Your task to perform on an android device: manage bookmarks in the chrome app Image 0: 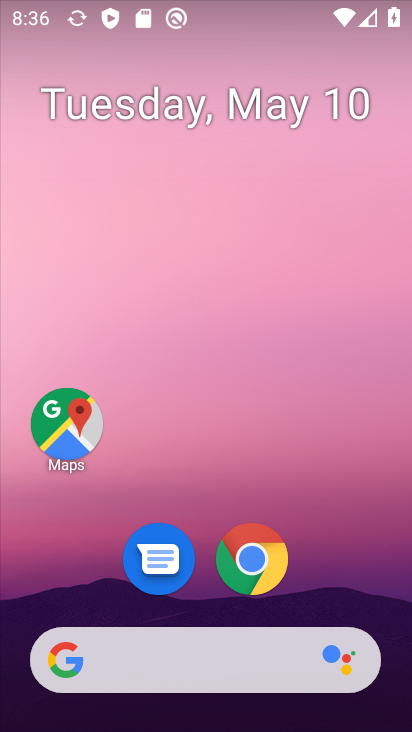
Step 0: drag from (370, 593) to (162, 131)
Your task to perform on an android device: manage bookmarks in the chrome app Image 1: 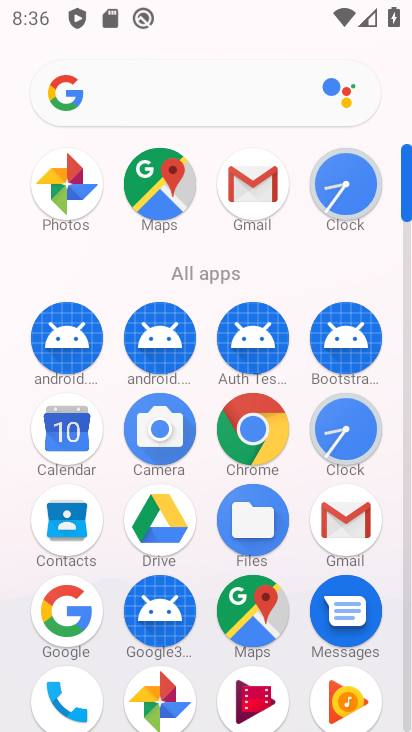
Step 1: click (256, 429)
Your task to perform on an android device: manage bookmarks in the chrome app Image 2: 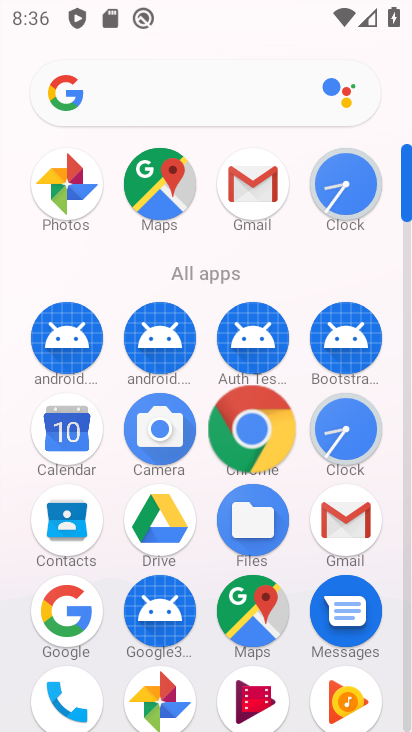
Step 2: click (257, 428)
Your task to perform on an android device: manage bookmarks in the chrome app Image 3: 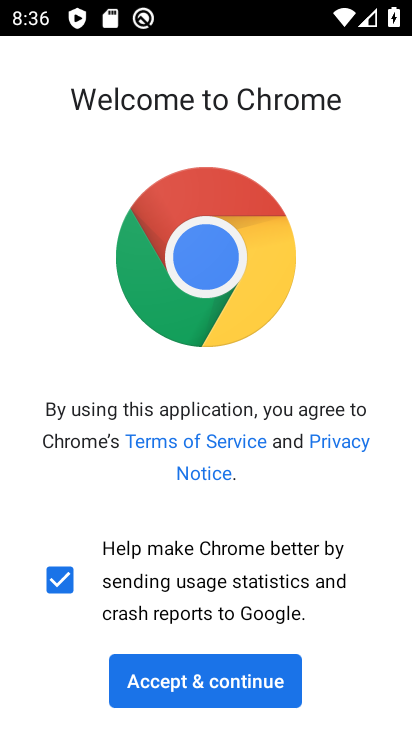
Step 3: click (216, 676)
Your task to perform on an android device: manage bookmarks in the chrome app Image 4: 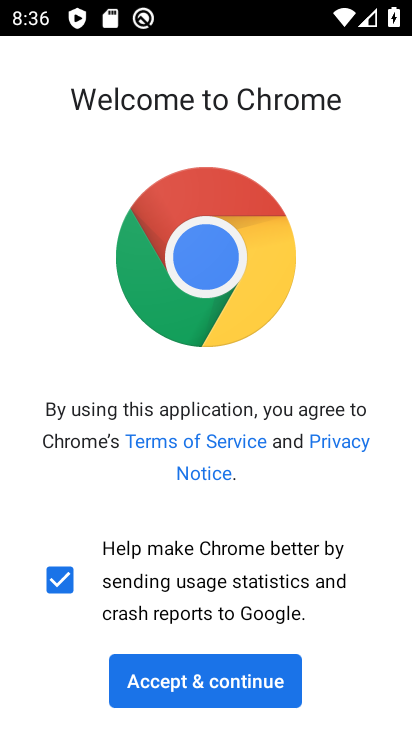
Step 4: click (216, 676)
Your task to perform on an android device: manage bookmarks in the chrome app Image 5: 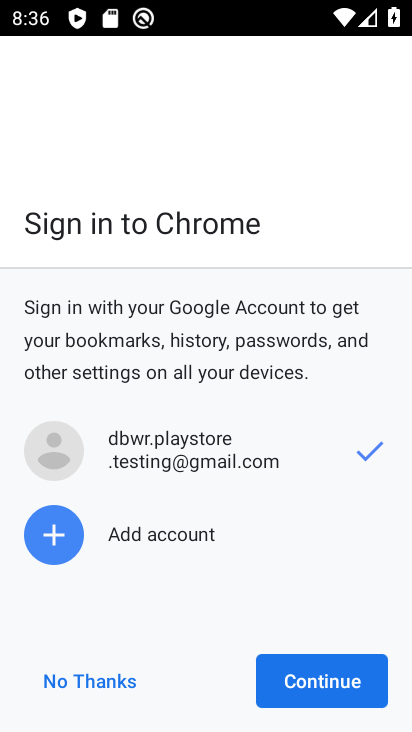
Step 5: click (319, 678)
Your task to perform on an android device: manage bookmarks in the chrome app Image 6: 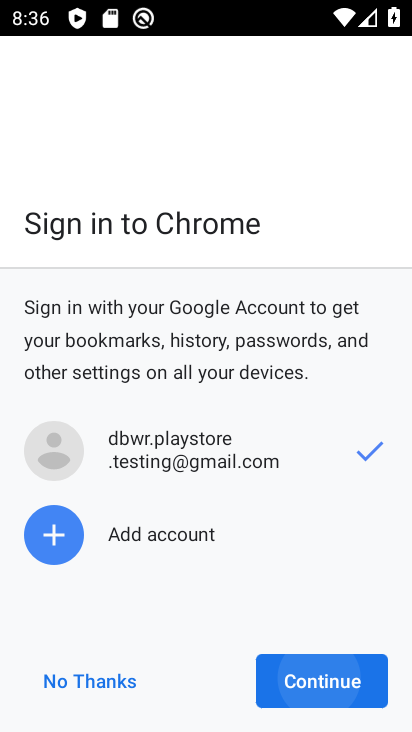
Step 6: click (319, 678)
Your task to perform on an android device: manage bookmarks in the chrome app Image 7: 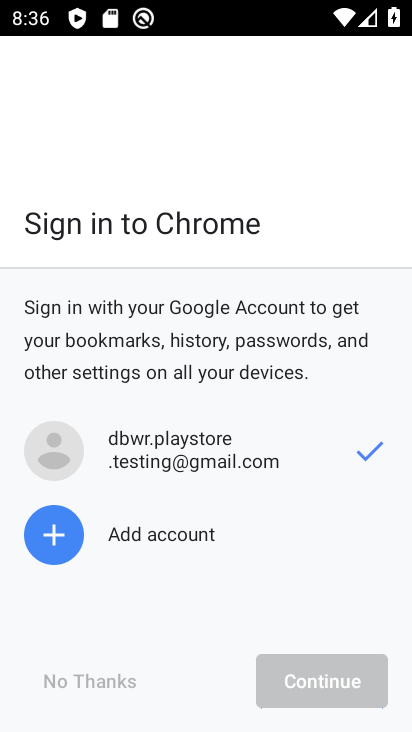
Step 7: click (319, 678)
Your task to perform on an android device: manage bookmarks in the chrome app Image 8: 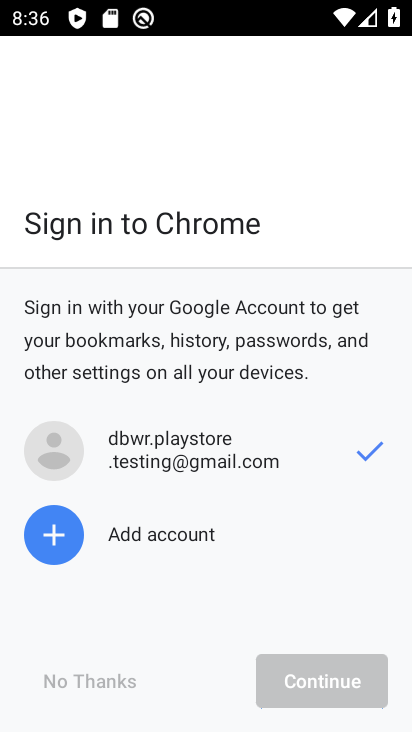
Step 8: click (319, 678)
Your task to perform on an android device: manage bookmarks in the chrome app Image 9: 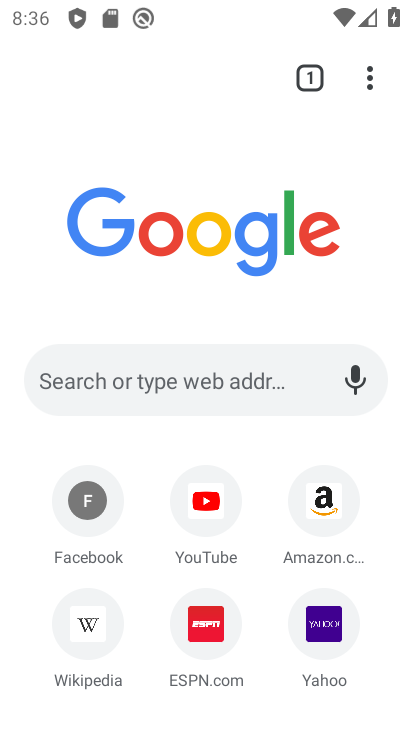
Step 9: drag from (367, 78) to (89, 616)
Your task to perform on an android device: manage bookmarks in the chrome app Image 10: 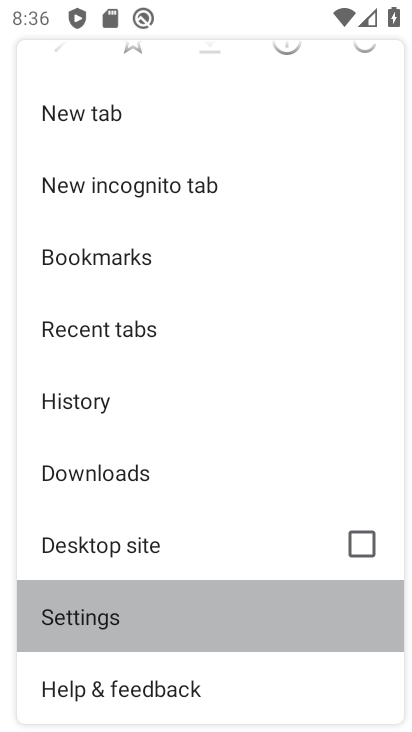
Step 10: click (92, 617)
Your task to perform on an android device: manage bookmarks in the chrome app Image 11: 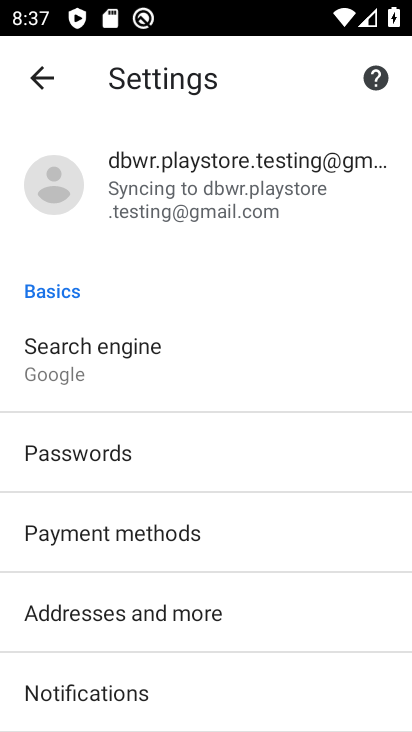
Step 11: drag from (117, 562) to (40, 231)
Your task to perform on an android device: manage bookmarks in the chrome app Image 12: 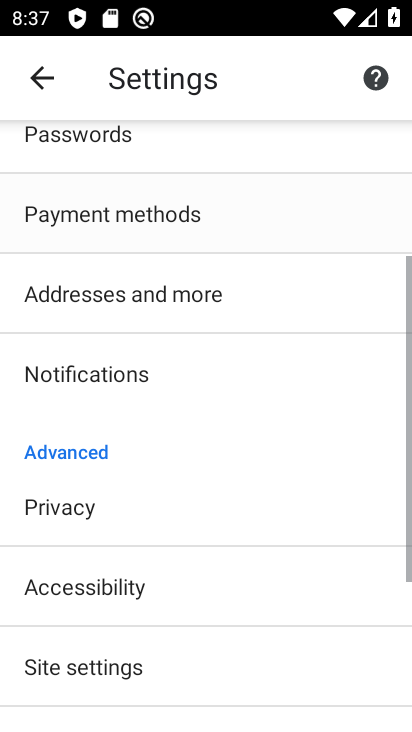
Step 12: drag from (165, 589) to (112, 169)
Your task to perform on an android device: manage bookmarks in the chrome app Image 13: 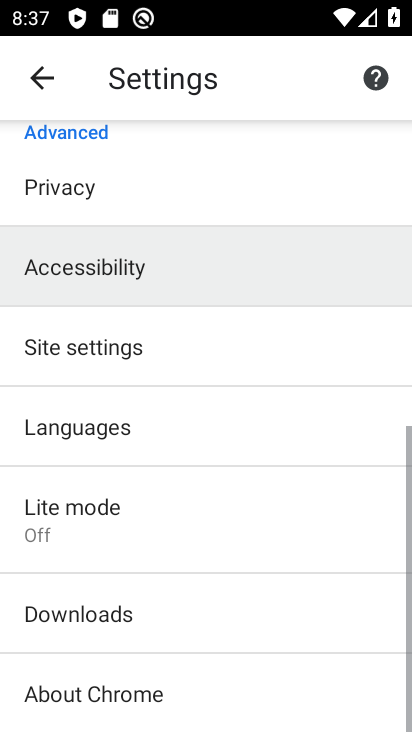
Step 13: drag from (181, 596) to (145, 176)
Your task to perform on an android device: manage bookmarks in the chrome app Image 14: 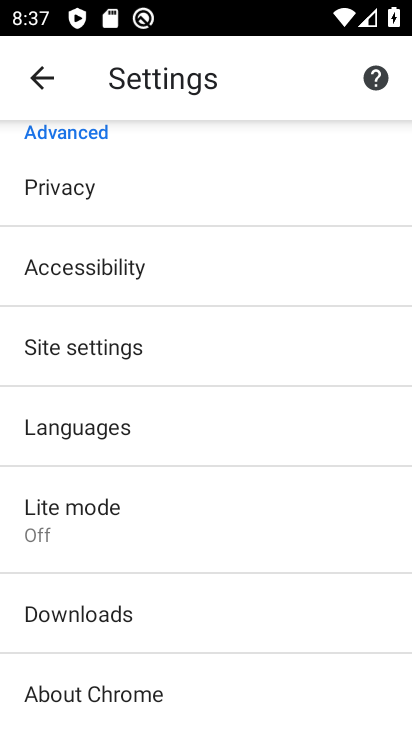
Step 14: drag from (95, 306) to (120, 572)
Your task to perform on an android device: manage bookmarks in the chrome app Image 15: 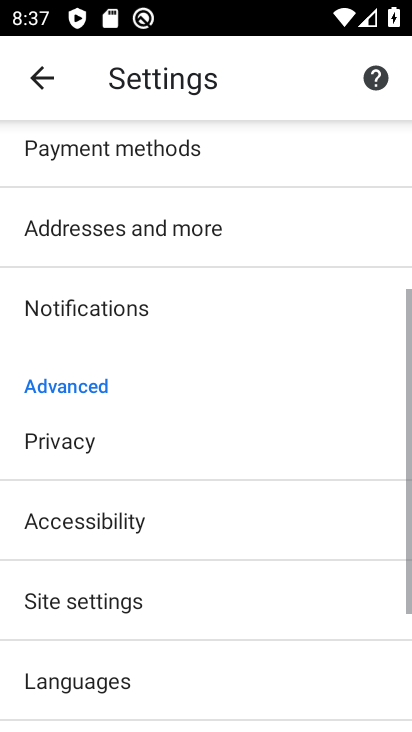
Step 15: drag from (108, 192) to (178, 625)
Your task to perform on an android device: manage bookmarks in the chrome app Image 16: 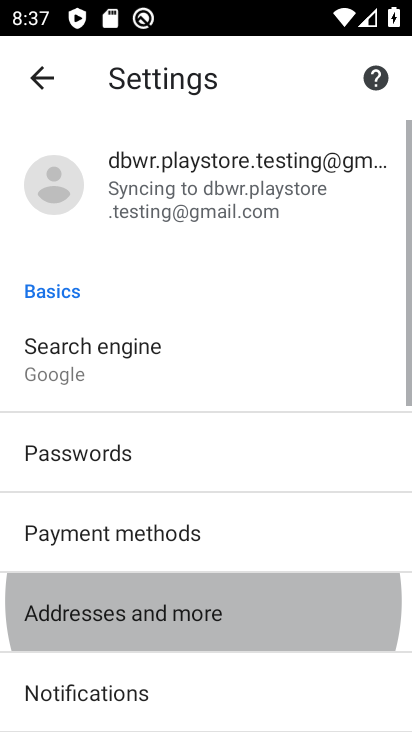
Step 16: drag from (134, 204) to (196, 576)
Your task to perform on an android device: manage bookmarks in the chrome app Image 17: 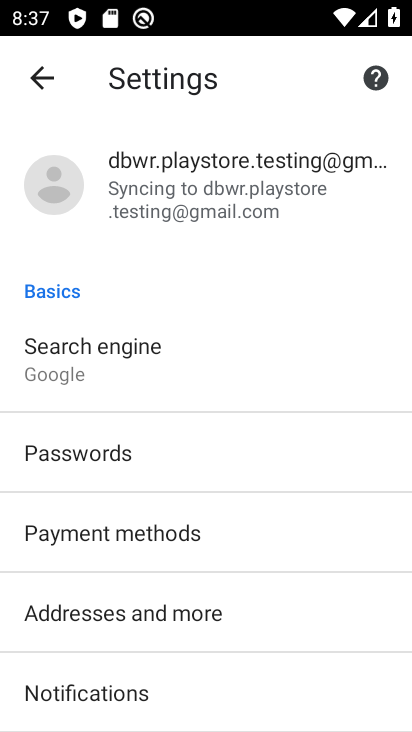
Step 17: click (34, 81)
Your task to perform on an android device: manage bookmarks in the chrome app Image 18: 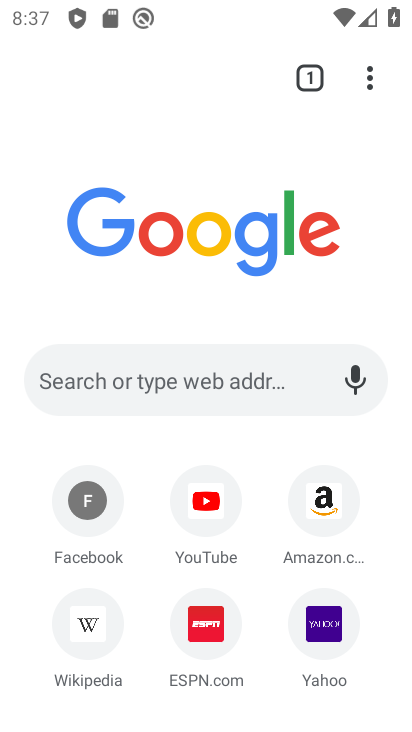
Step 18: drag from (365, 74) to (96, 300)
Your task to perform on an android device: manage bookmarks in the chrome app Image 19: 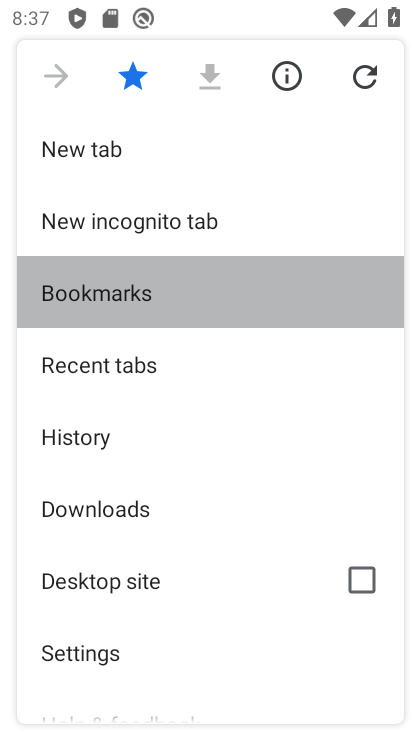
Step 19: click (100, 298)
Your task to perform on an android device: manage bookmarks in the chrome app Image 20: 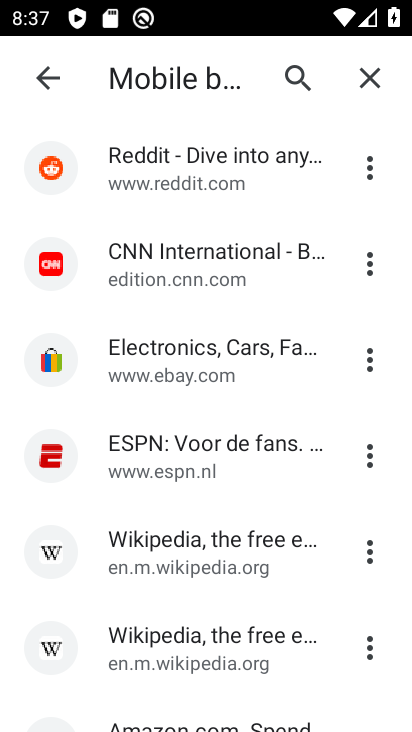
Step 20: click (369, 165)
Your task to perform on an android device: manage bookmarks in the chrome app Image 21: 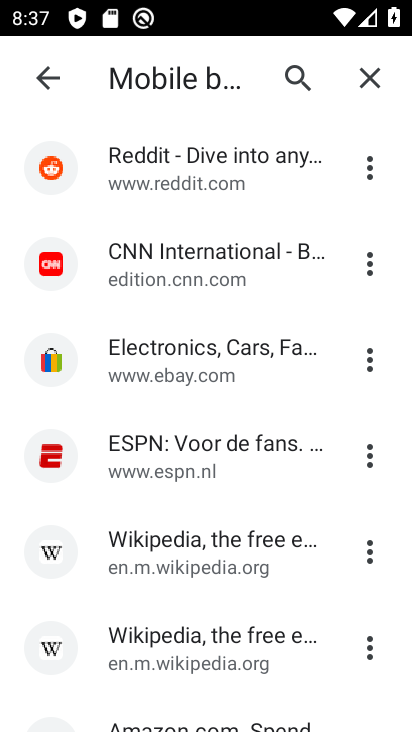
Step 21: click (372, 179)
Your task to perform on an android device: manage bookmarks in the chrome app Image 22: 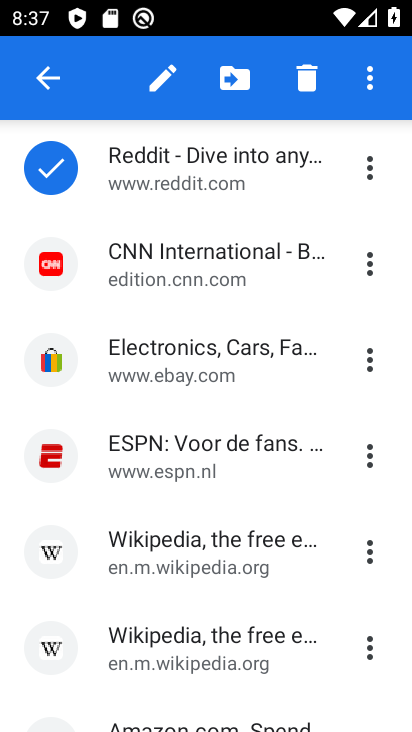
Step 22: click (295, 74)
Your task to perform on an android device: manage bookmarks in the chrome app Image 23: 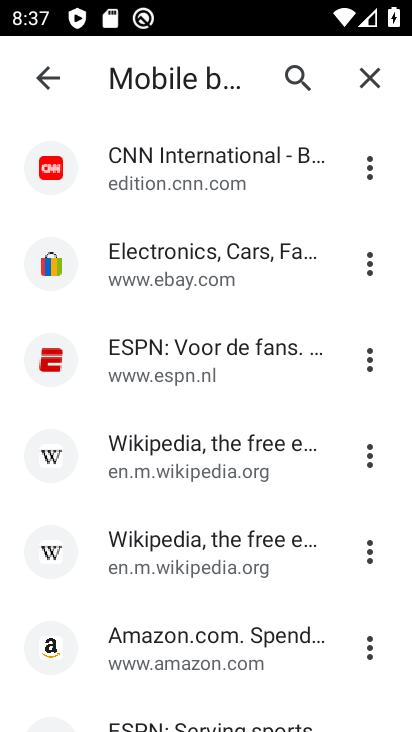
Step 23: click (303, 78)
Your task to perform on an android device: manage bookmarks in the chrome app Image 24: 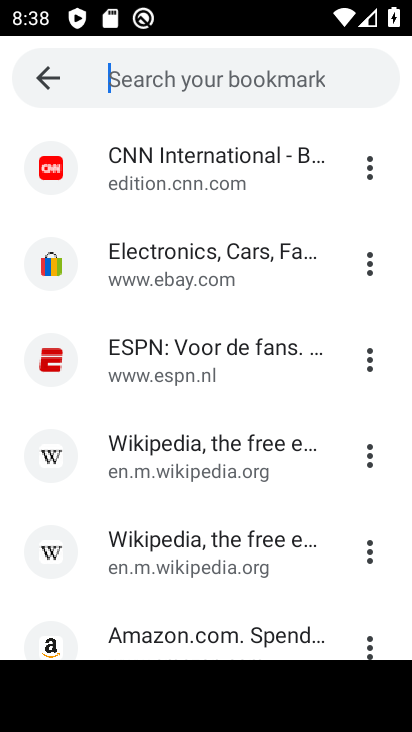
Step 24: click (44, 69)
Your task to perform on an android device: manage bookmarks in the chrome app Image 25: 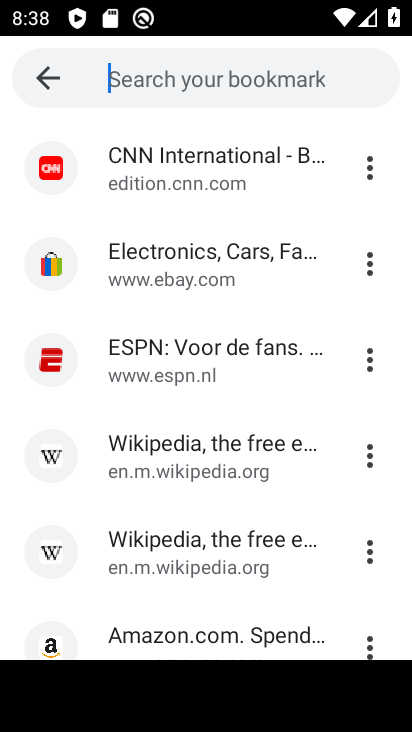
Step 25: click (42, 69)
Your task to perform on an android device: manage bookmarks in the chrome app Image 26: 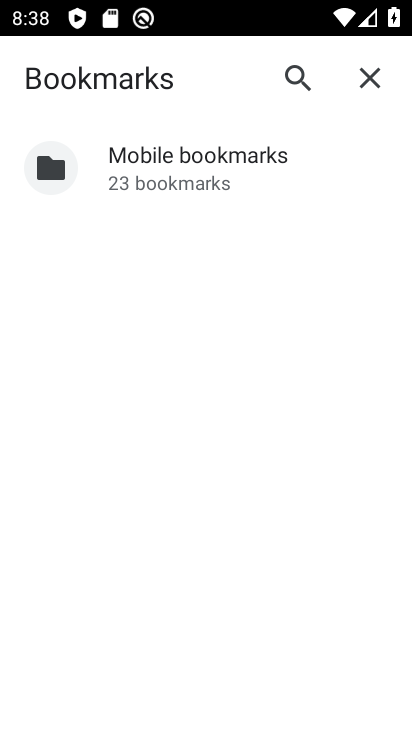
Step 26: click (369, 74)
Your task to perform on an android device: manage bookmarks in the chrome app Image 27: 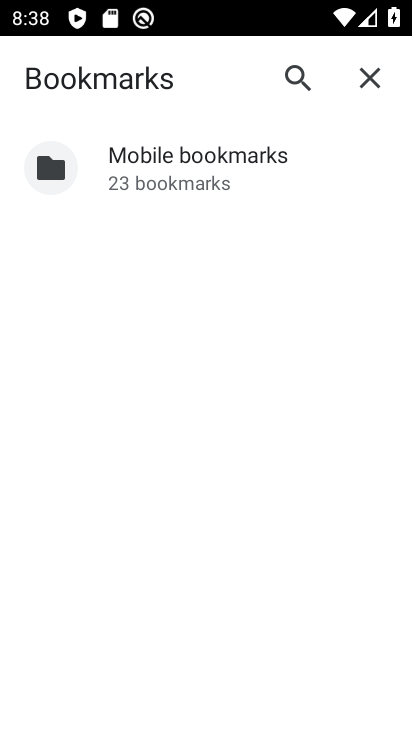
Step 27: click (369, 74)
Your task to perform on an android device: manage bookmarks in the chrome app Image 28: 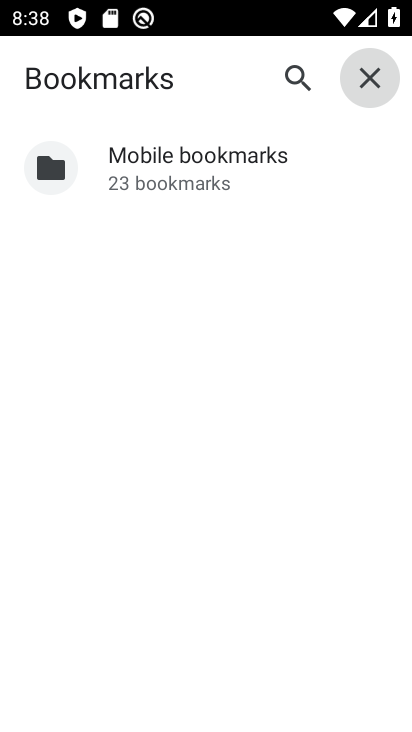
Step 28: click (369, 74)
Your task to perform on an android device: manage bookmarks in the chrome app Image 29: 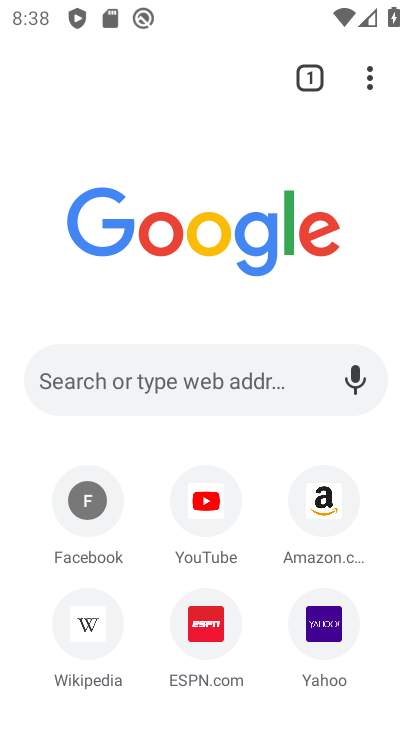
Step 29: click (367, 85)
Your task to perform on an android device: manage bookmarks in the chrome app Image 30: 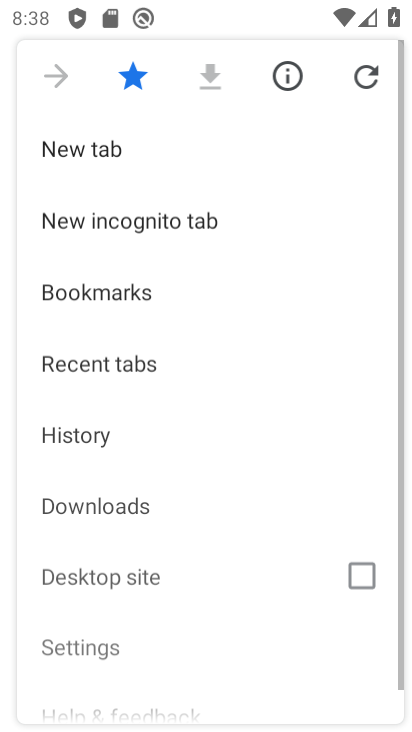
Step 30: click (367, 85)
Your task to perform on an android device: manage bookmarks in the chrome app Image 31: 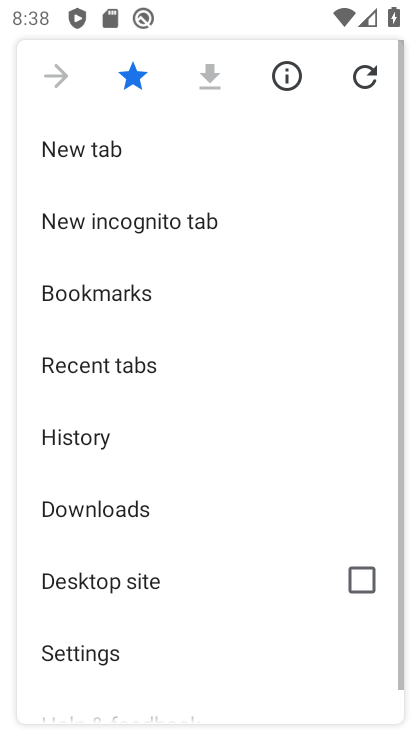
Step 31: click (368, 84)
Your task to perform on an android device: manage bookmarks in the chrome app Image 32: 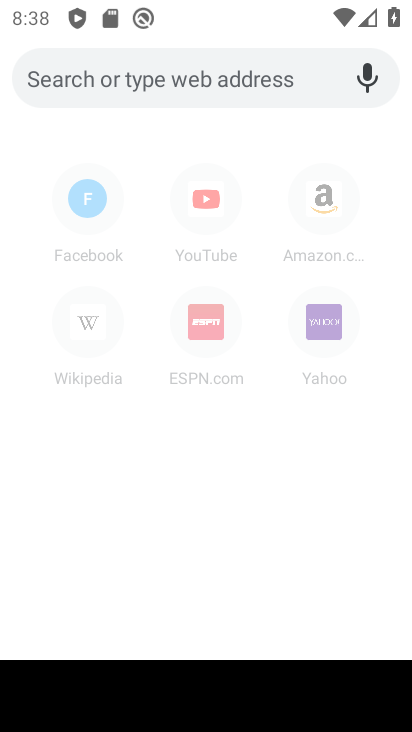
Step 32: click (45, 73)
Your task to perform on an android device: manage bookmarks in the chrome app Image 33: 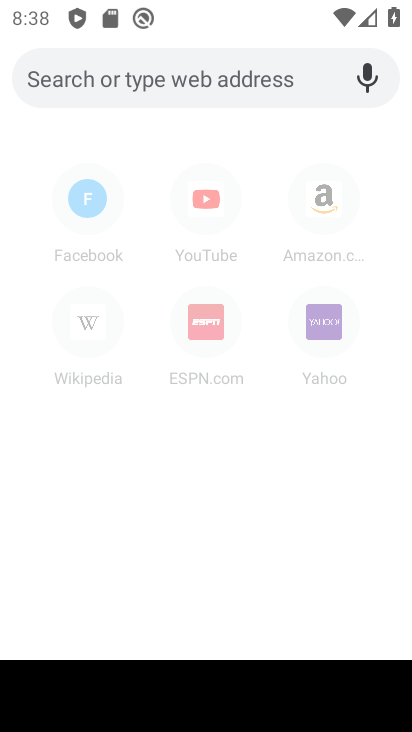
Step 33: click (45, 73)
Your task to perform on an android device: manage bookmarks in the chrome app Image 34: 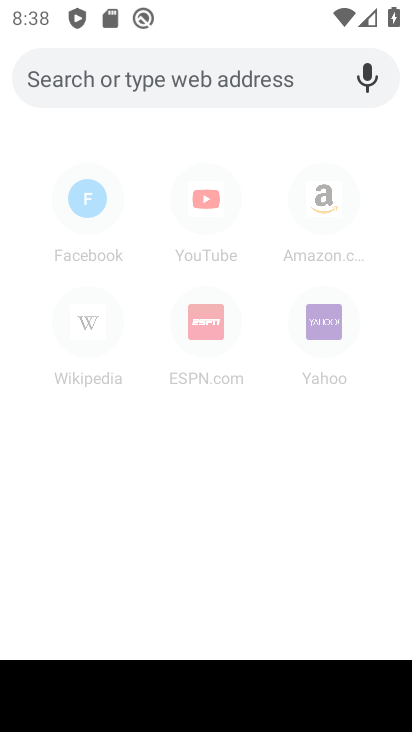
Step 34: click (37, 74)
Your task to perform on an android device: manage bookmarks in the chrome app Image 35: 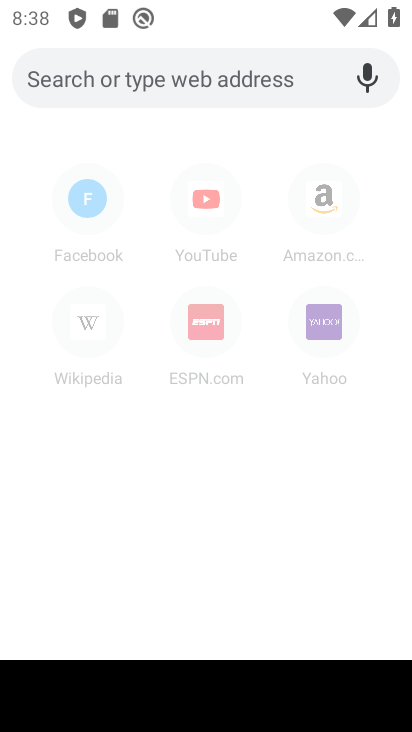
Step 35: click (37, 74)
Your task to perform on an android device: manage bookmarks in the chrome app Image 36: 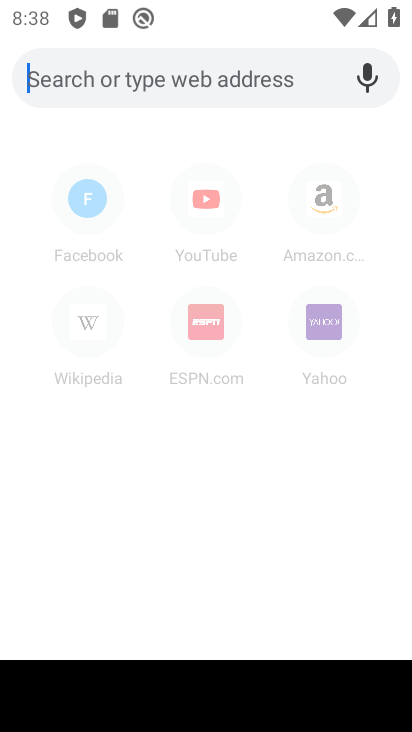
Step 36: click (38, 74)
Your task to perform on an android device: manage bookmarks in the chrome app Image 37: 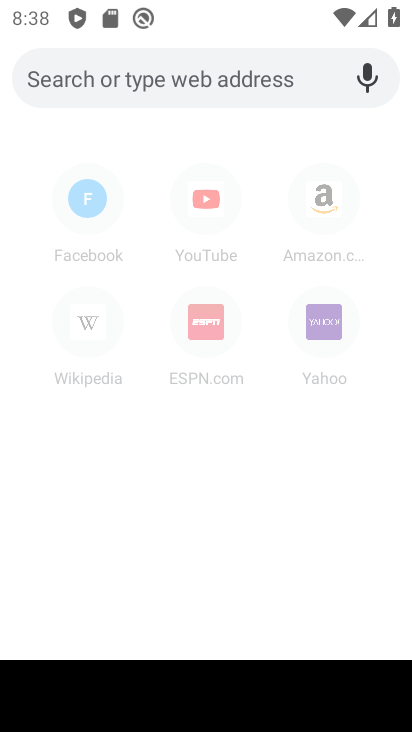
Step 37: click (40, 72)
Your task to perform on an android device: manage bookmarks in the chrome app Image 38: 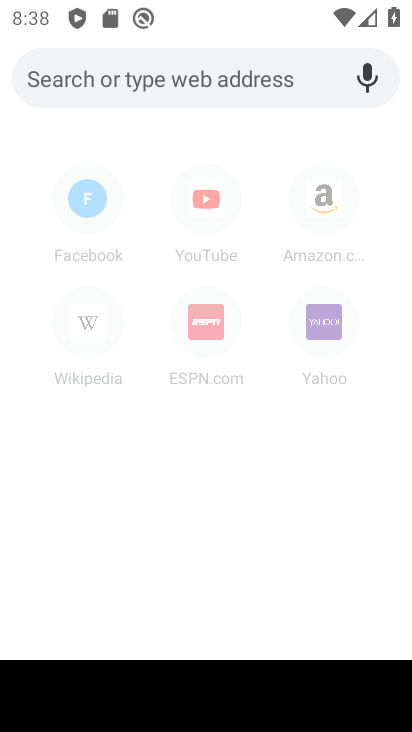
Step 38: click (40, 73)
Your task to perform on an android device: manage bookmarks in the chrome app Image 39: 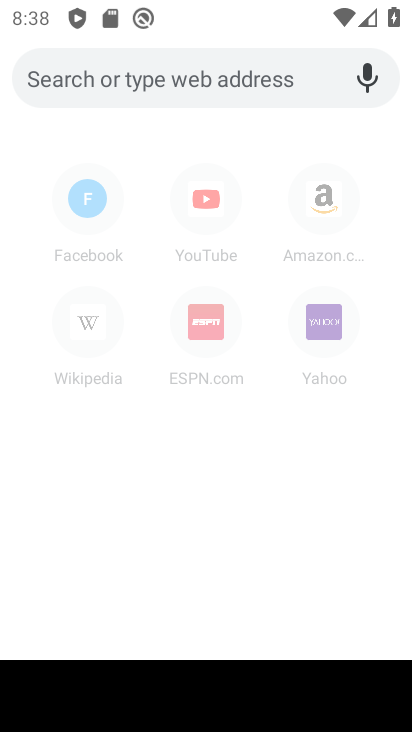
Step 39: click (40, 73)
Your task to perform on an android device: manage bookmarks in the chrome app Image 40: 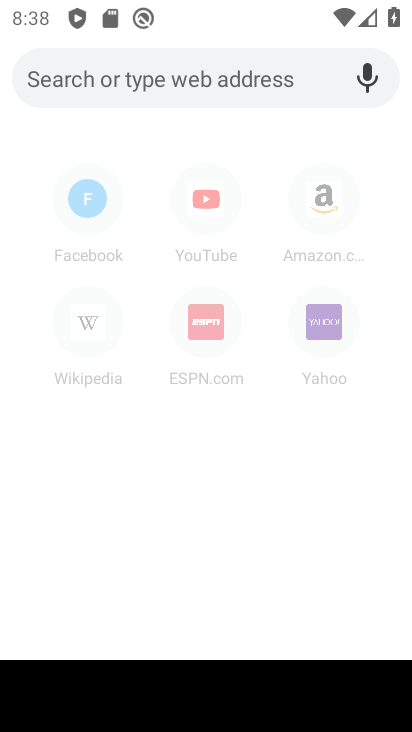
Step 40: click (40, 73)
Your task to perform on an android device: manage bookmarks in the chrome app Image 41: 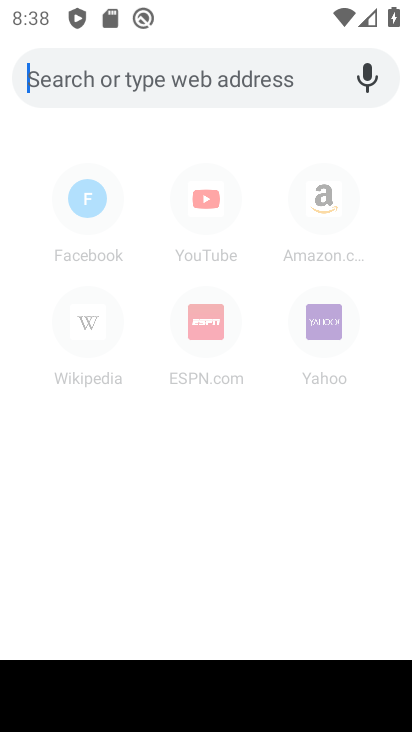
Step 41: click (40, 73)
Your task to perform on an android device: manage bookmarks in the chrome app Image 42: 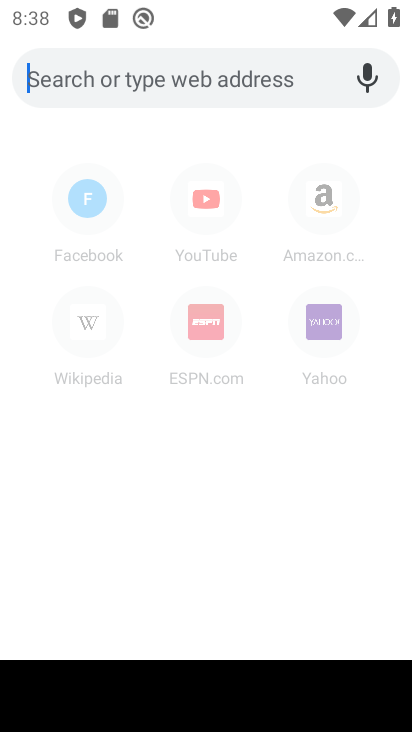
Step 42: click (41, 85)
Your task to perform on an android device: manage bookmarks in the chrome app Image 43: 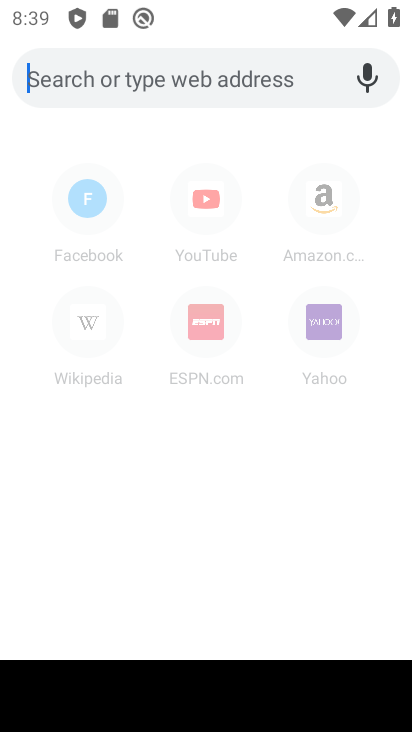
Step 43: press back button
Your task to perform on an android device: manage bookmarks in the chrome app Image 44: 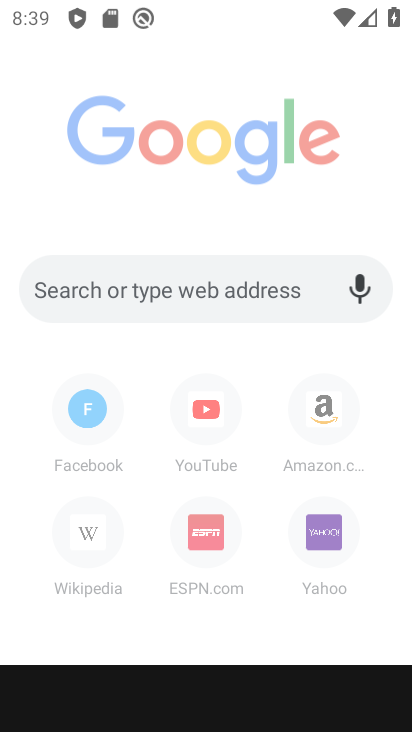
Step 44: press back button
Your task to perform on an android device: manage bookmarks in the chrome app Image 45: 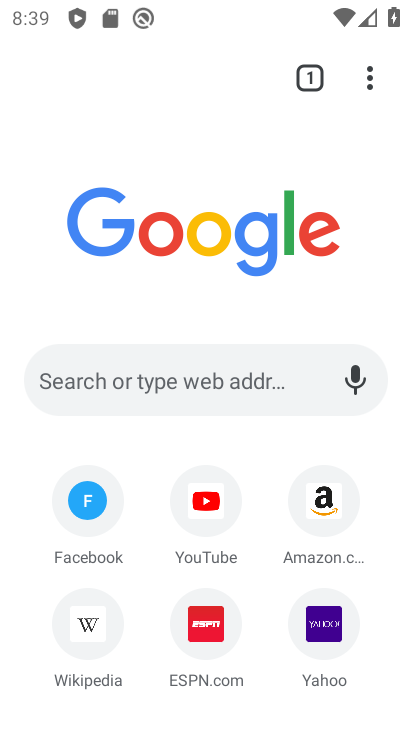
Step 45: press back button
Your task to perform on an android device: manage bookmarks in the chrome app Image 46: 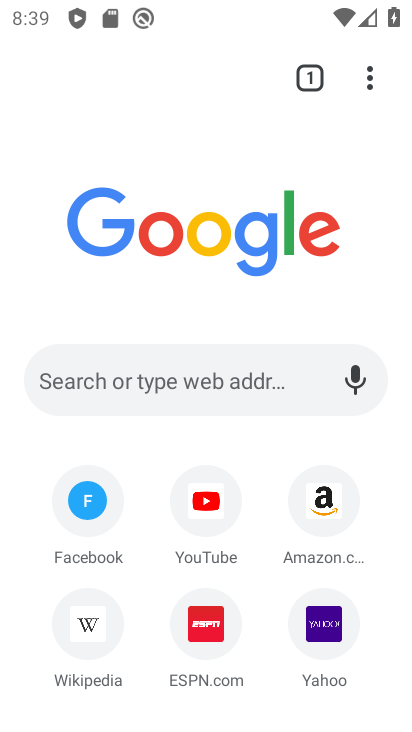
Step 46: click (321, 487)
Your task to perform on an android device: manage bookmarks in the chrome app Image 47: 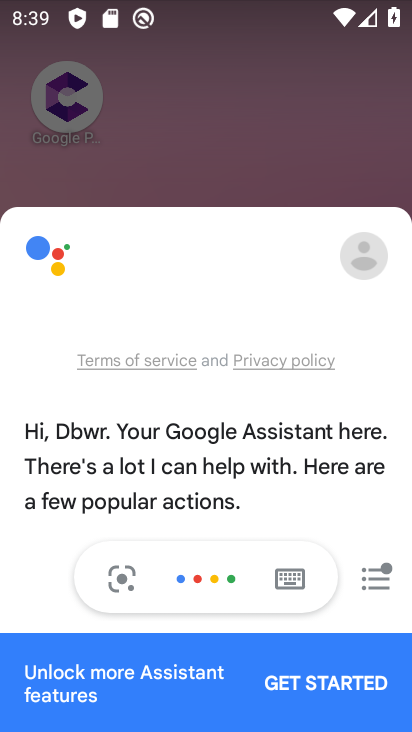
Step 47: click (137, 138)
Your task to perform on an android device: manage bookmarks in the chrome app Image 48: 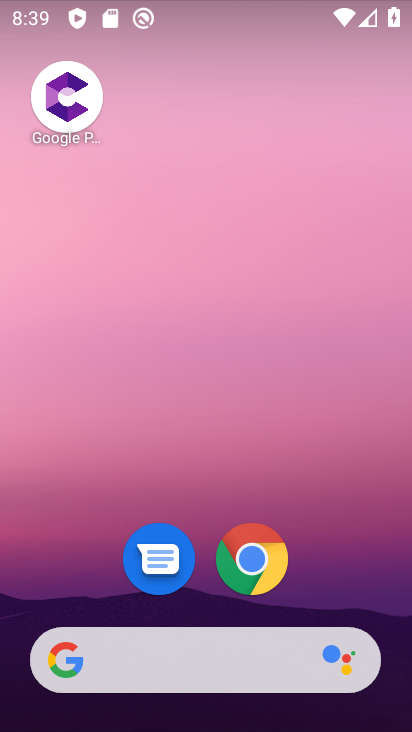
Step 48: click (137, 138)
Your task to perform on an android device: manage bookmarks in the chrome app Image 49: 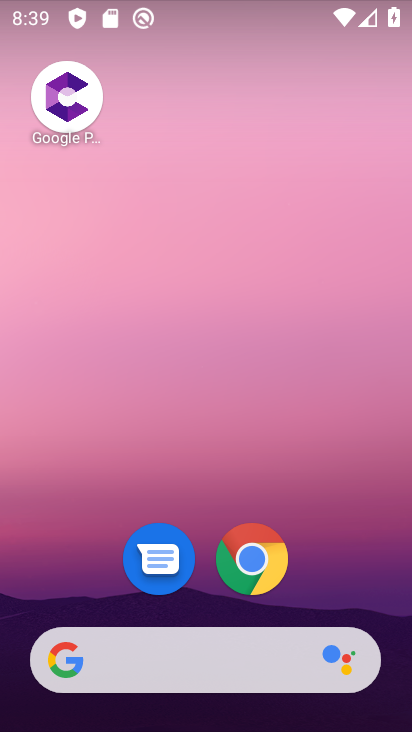
Step 49: drag from (365, 580) to (197, 77)
Your task to perform on an android device: manage bookmarks in the chrome app Image 50: 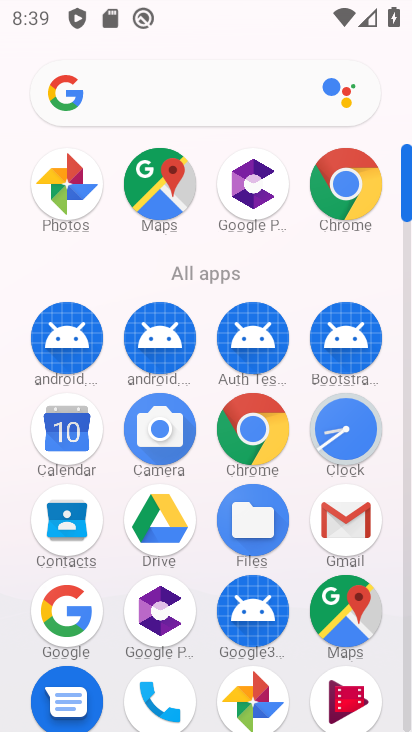
Step 50: click (353, 188)
Your task to perform on an android device: manage bookmarks in the chrome app Image 51: 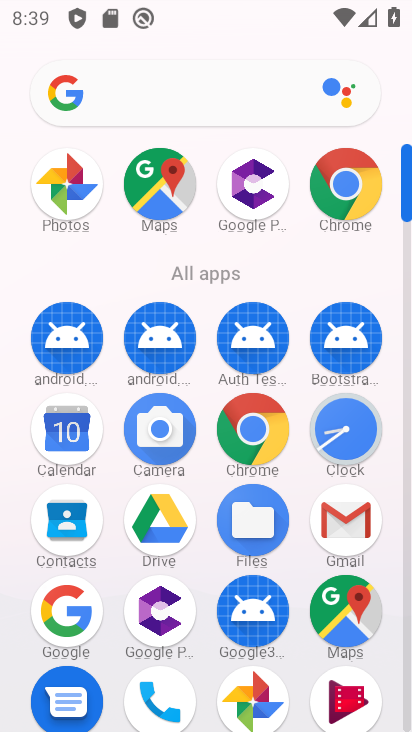
Step 51: click (353, 188)
Your task to perform on an android device: manage bookmarks in the chrome app Image 52: 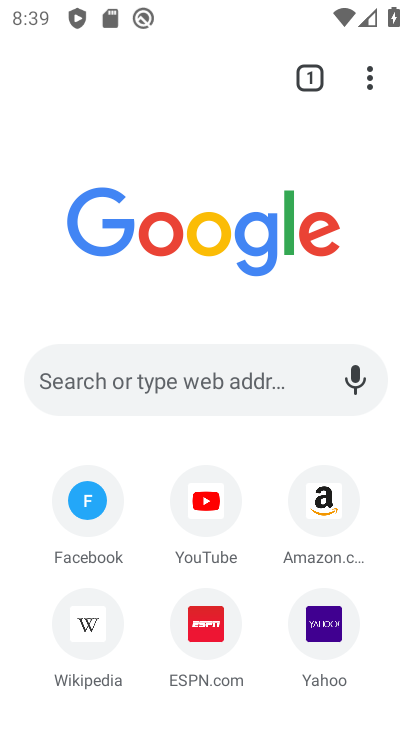
Step 52: click (365, 78)
Your task to perform on an android device: manage bookmarks in the chrome app Image 53: 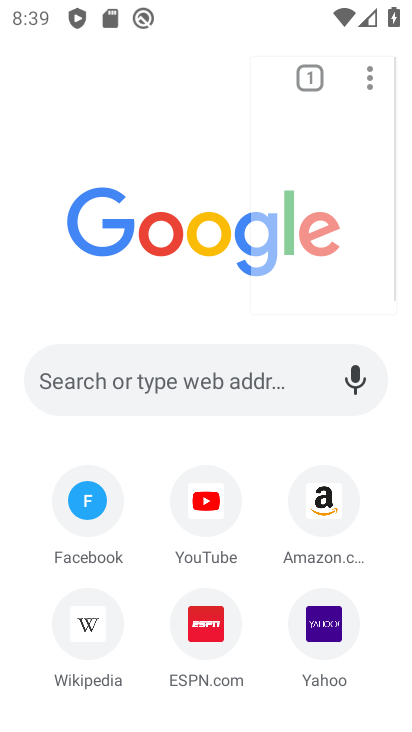
Step 53: click (365, 78)
Your task to perform on an android device: manage bookmarks in the chrome app Image 54: 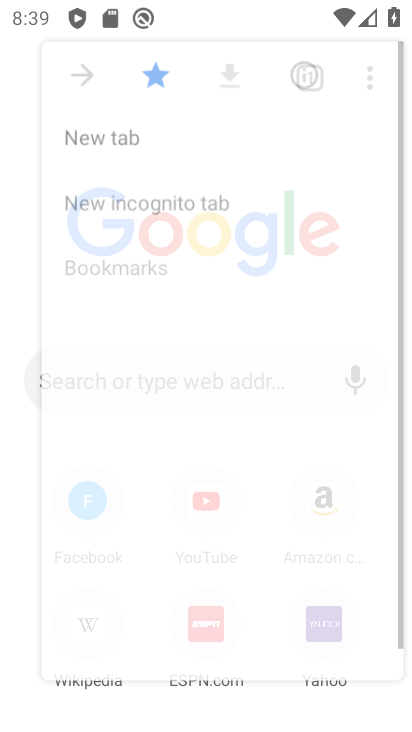
Step 54: drag from (365, 78) to (91, 299)
Your task to perform on an android device: manage bookmarks in the chrome app Image 55: 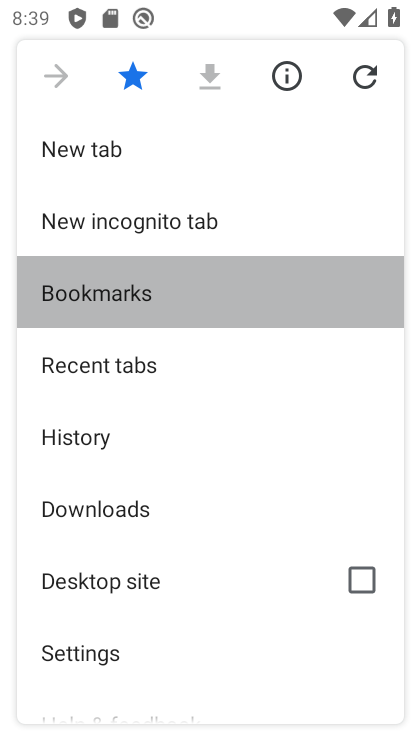
Step 55: click (89, 296)
Your task to perform on an android device: manage bookmarks in the chrome app Image 56: 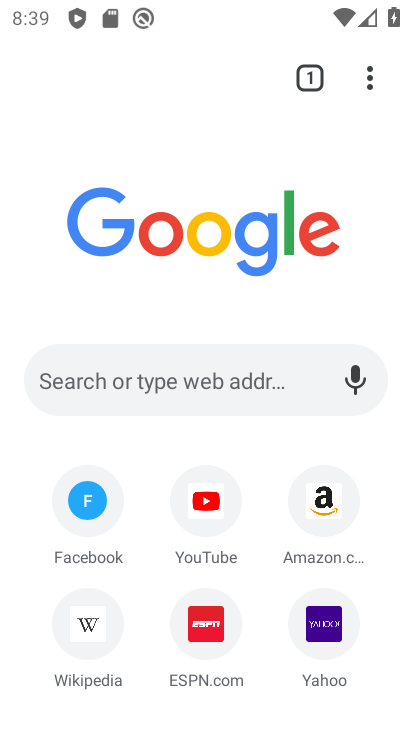
Step 56: click (92, 294)
Your task to perform on an android device: manage bookmarks in the chrome app Image 57: 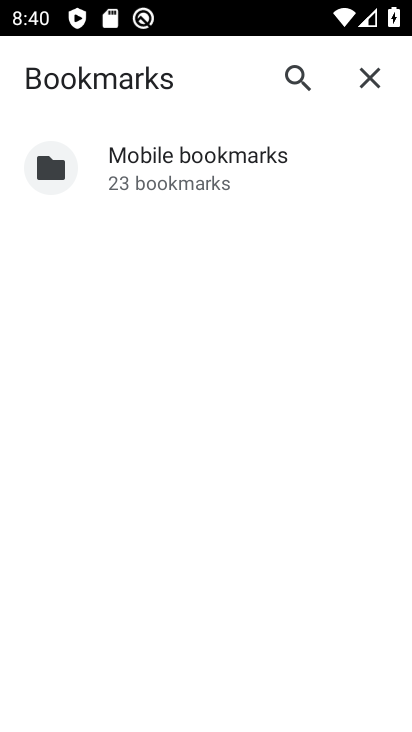
Step 57: task complete